Your task to perform on an android device: Play the last video I watched on Youtube Image 0: 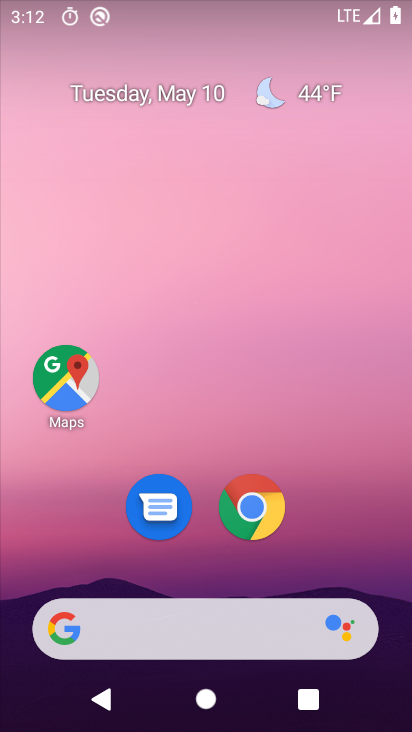
Step 0: drag from (193, 591) to (232, 215)
Your task to perform on an android device: Play the last video I watched on Youtube Image 1: 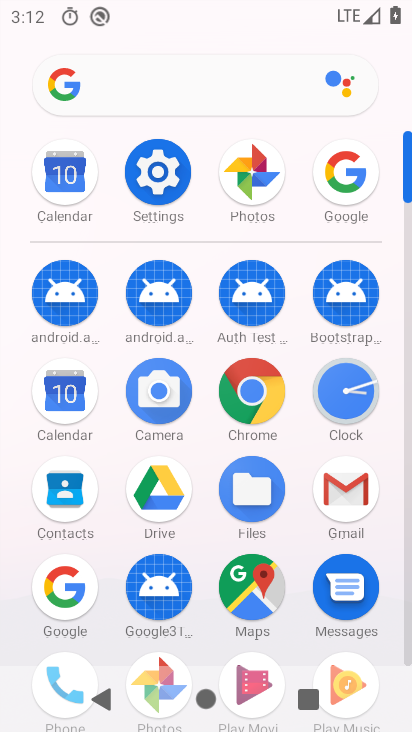
Step 1: drag from (226, 629) to (219, 346)
Your task to perform on an android device: Play the last video I watched on Youtube Image 2: 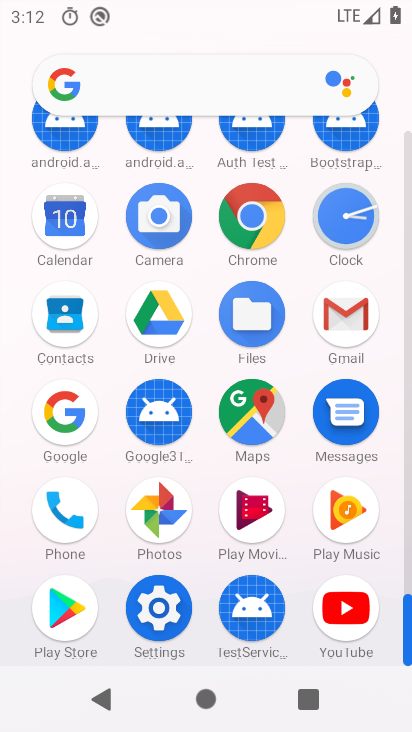
Step 2: click (349, 612)
Your task to perform on an android device: Play the last video I watched on Youtube Image 3: 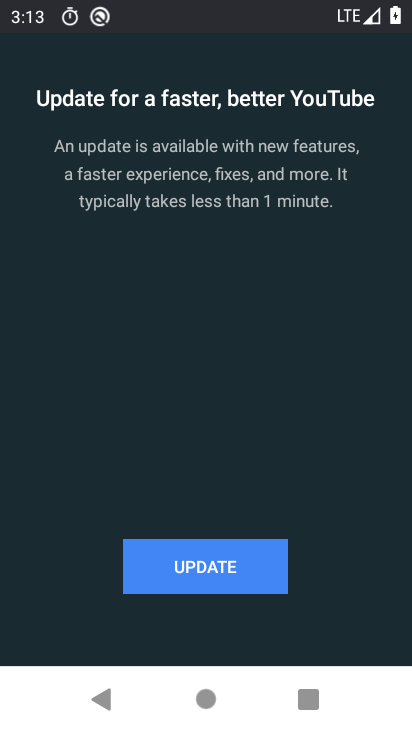
Step 3: click (236, 572)
Your task to perform on an android device: Play the last video I watched on Youtube Image 4: 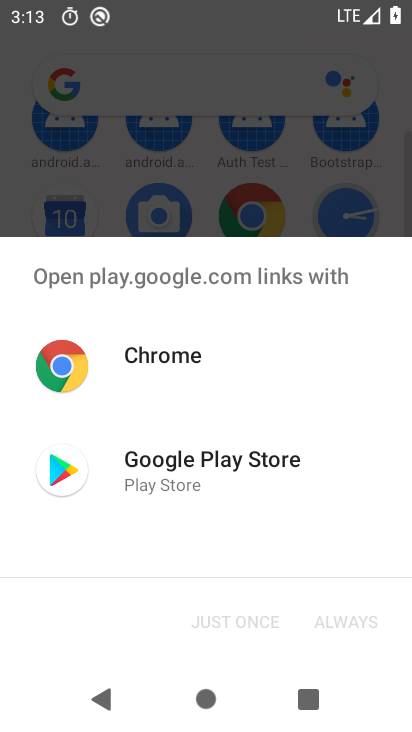
Step 4: click (190, 472)
Your task to perform on an android device: Play the last video I watched on Youtube Image 5: 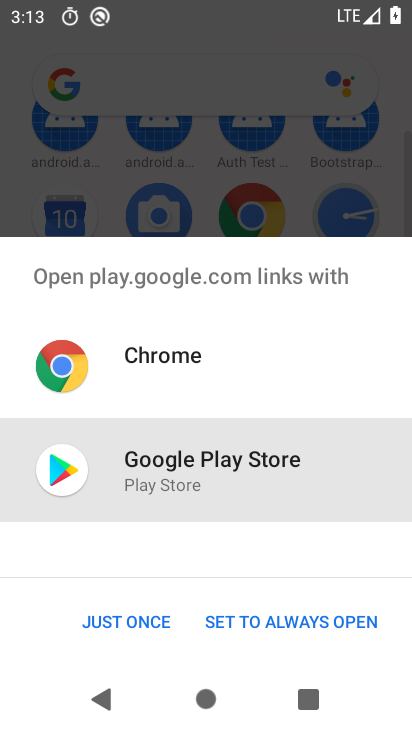
Step 5: click (247, 621)
Your task to perform on an android device: Play the last video I watched on Youtube Image 6: 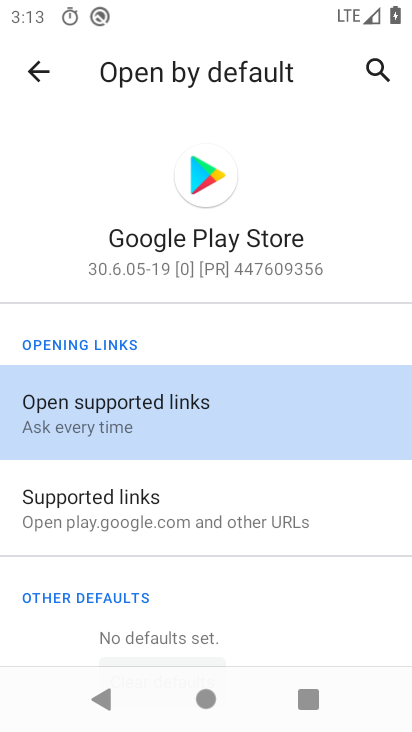
Step 6: click (160, 496)
Your task to perform on an android device: Play the last video I watched on Youtube Image 7: 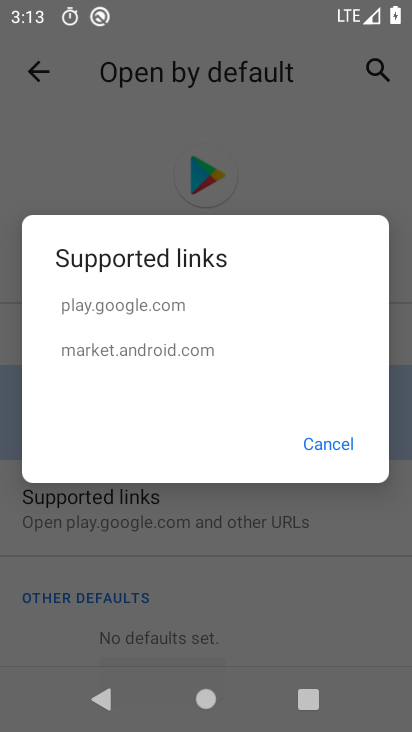
Step 7: click (325, 437)
Your task to perform on an android device: Play the last video I watched on Youtube Image 8: 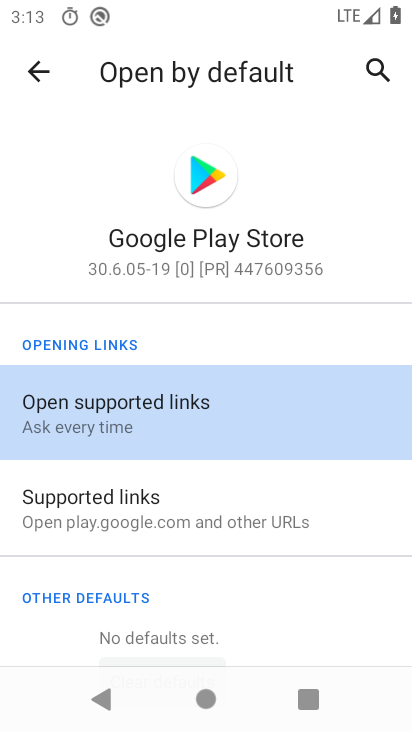
Step 8: click (193, 419)
Your task to perform on an android device: Play the last video I watched on Youtube Image 9: 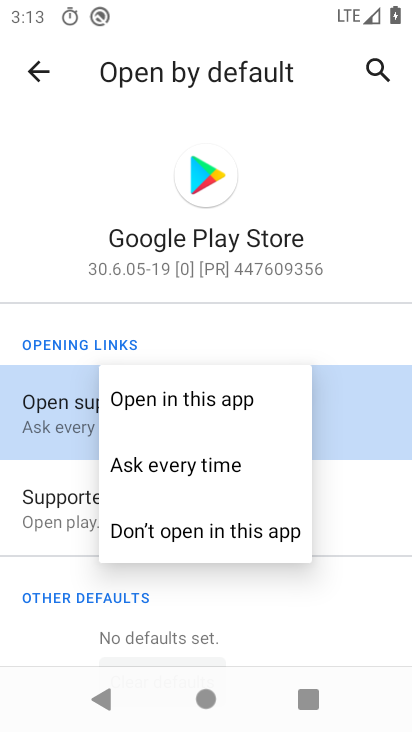
Step 9: click (181, 399)
Your task to perform on an android device: Play the last video I watched on Youtube Image 10: 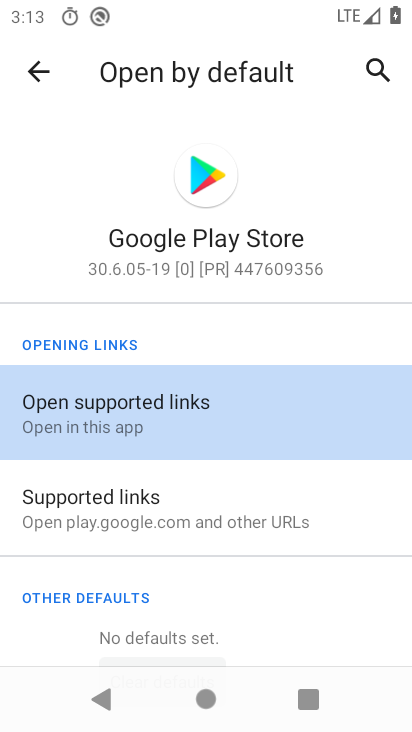
Step 10: click (36, 65)
Your task to perform on an android device: Play the last video I watched on Youtube Image 11: 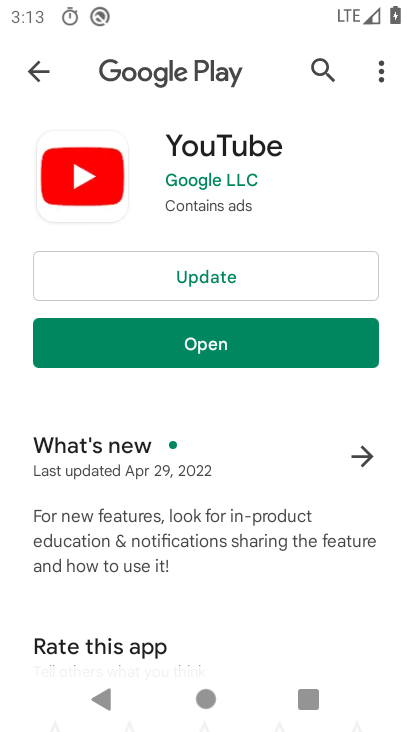
Step 11: click (213, 277)
Your task to perform on an android device: Play the last video I watched on Youtube Image 12: 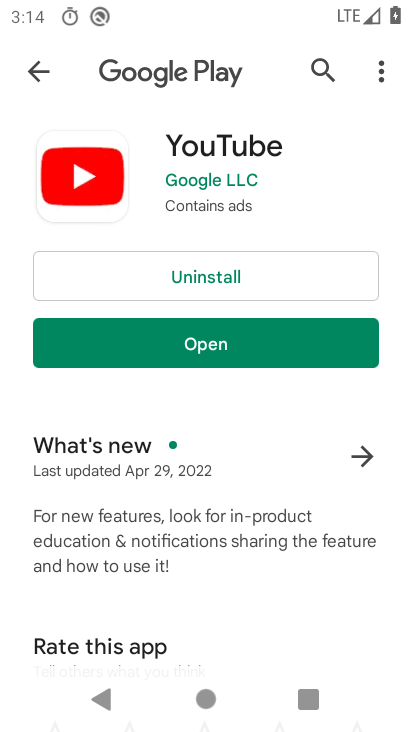
Step 12: click (149, 351)
Your task to perform on an android device: Play the last video I watched on Youtube Image 13: 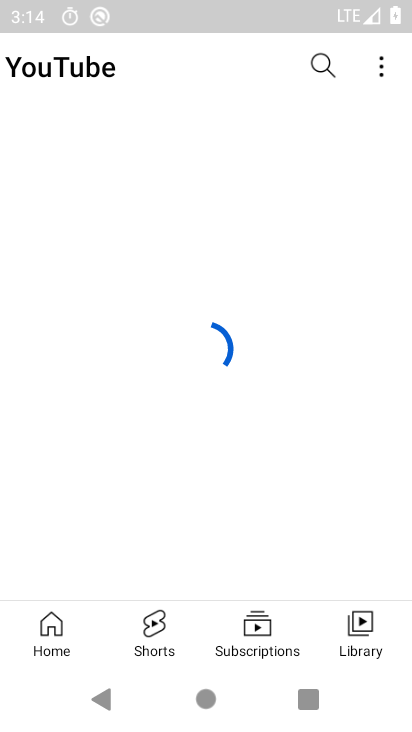
Step 13: click (370, 635)
Your task to perform on an android device: Play the last video I watched on Youtube Image 14: 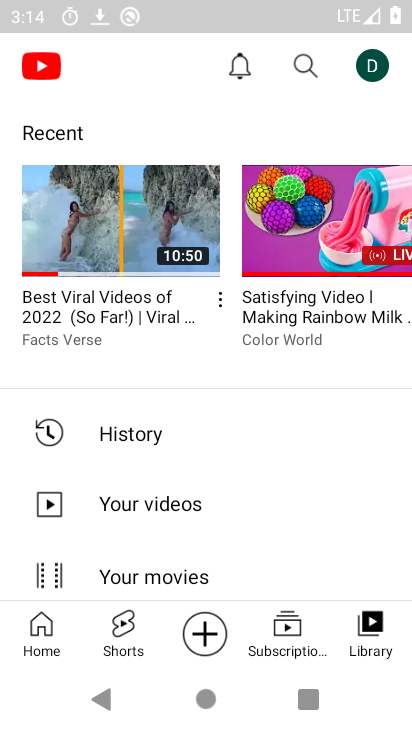
Step 14: click (107, 217)
Your task to perform on an android device: Play the last video I watched on Youtube Image 15: 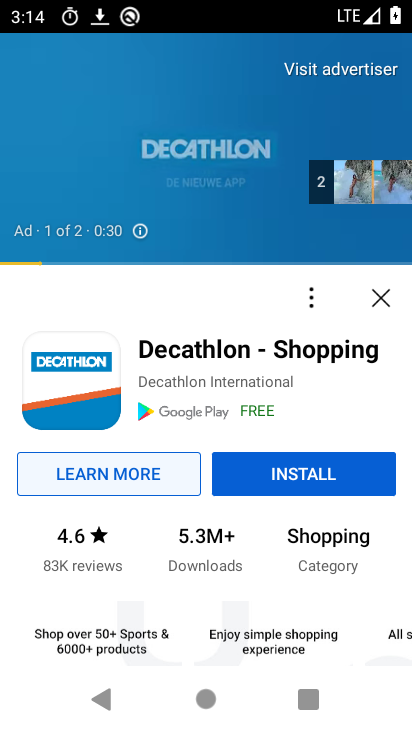
Step 15: click (390, 291)
Your task to perform on an android device: Play the last video I watched on Youtube Image 16: 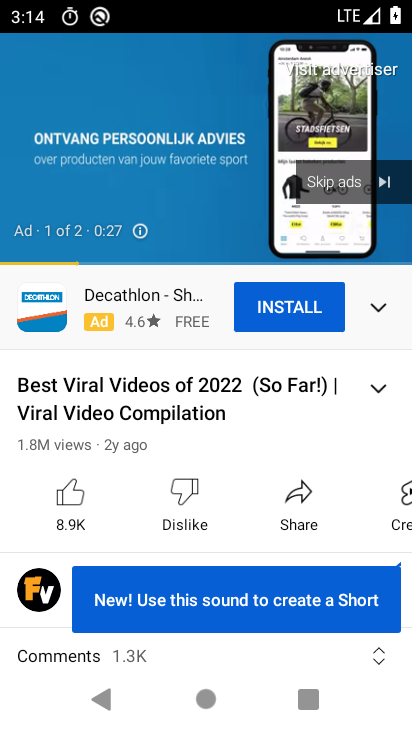
Step 16: click (339, 178)
Your task to perform on an android device: Play the last video I watched on Youtube Image 17: 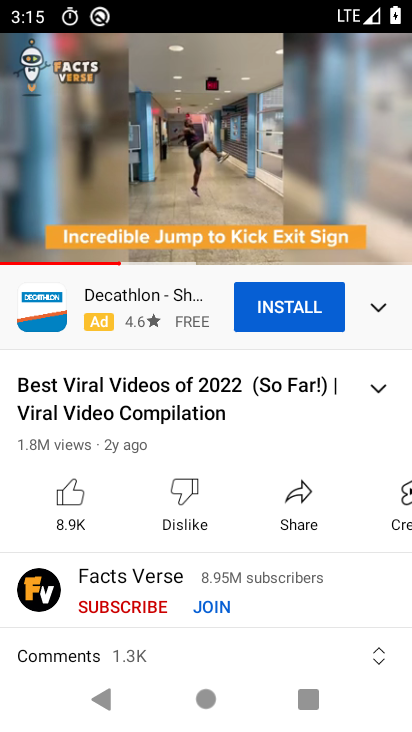
Step 17: task complete